Your task to perform on an android device: Open Chrome and go to the settings page Image 0: 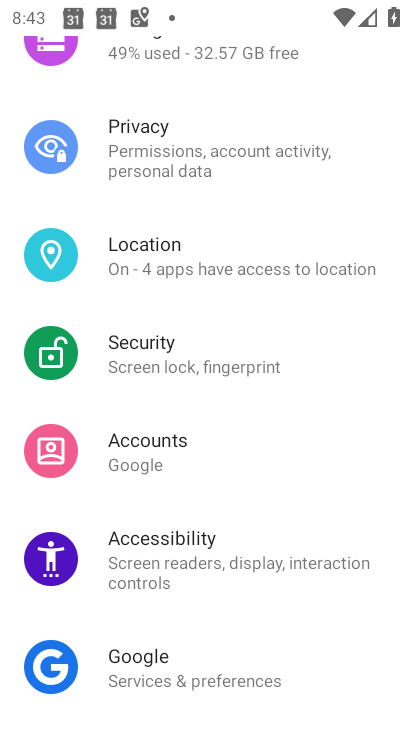
Step 0: press home button
Your task to perform on an android device: Open Chrome and go to the settings page Image 1: 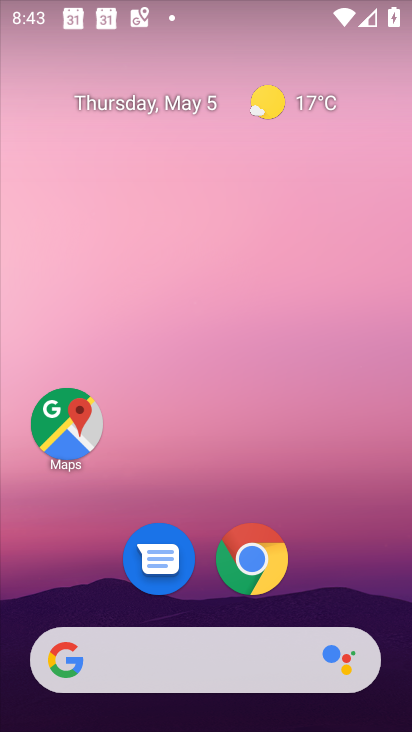
Step 1: click (249, 561)
Your task to perform on an android device: Open Chrome and go to the settings page Image 2: 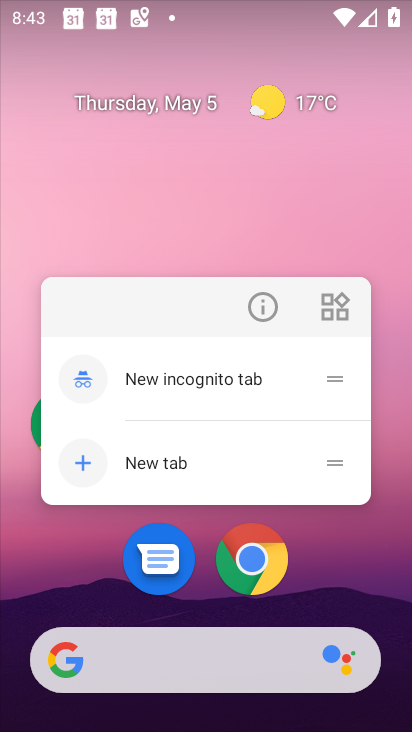
Step 2: click (244, 567)
Your task to perform on an android device: Open Chrome and go to the settings page Image 3: 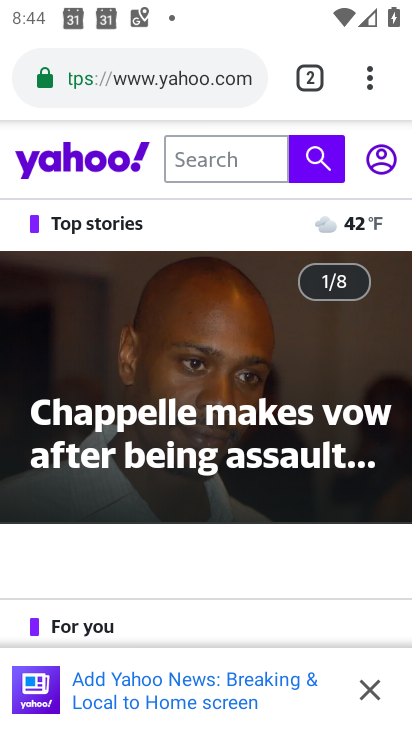
Step 3: task complete